Your task to perform on an android device: Open the stopwatch Image 0: 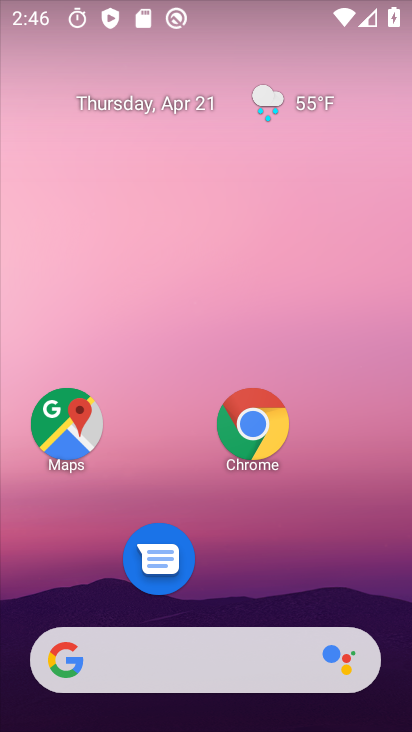
Step 0: drag from (254, 516) to (181, 60)
Your task to perform on an android device: Open the stopwatch Image 1: 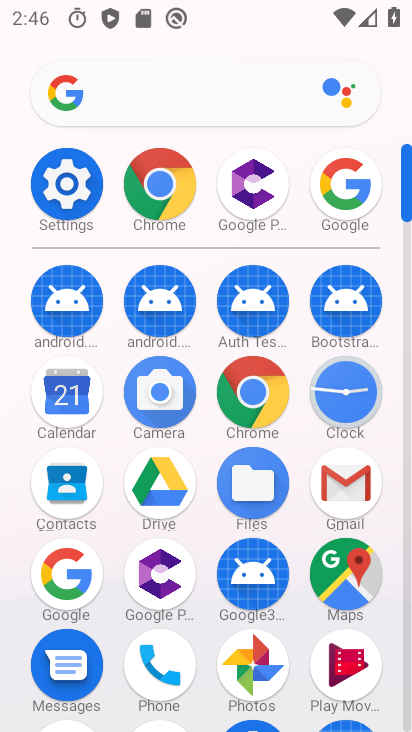
Step 1: click (349, 395)
Your task to perform on an android device: Open the stopwatch Image 2: 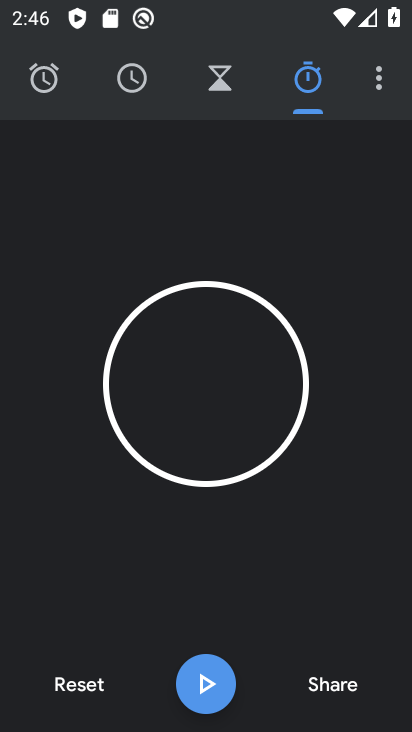
Step 2: click (215, 686)
Your task to perform on an android device: Open the stopwatch Image 3: 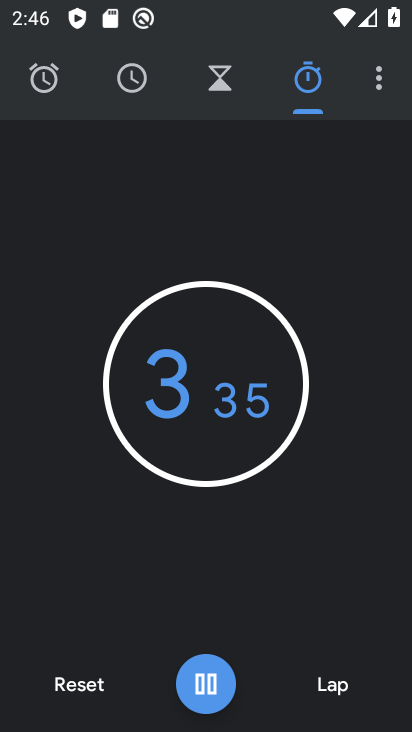
Step 3: click (210, 689)
Your task to perform on an android device: Open the stopwatch Image 4: 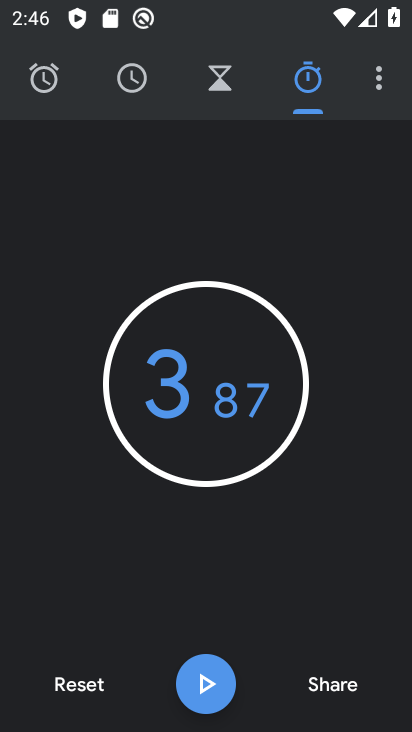
Step 4: task complete